Your task to perform on an android device: toggle translation in the chrome app Image 0: 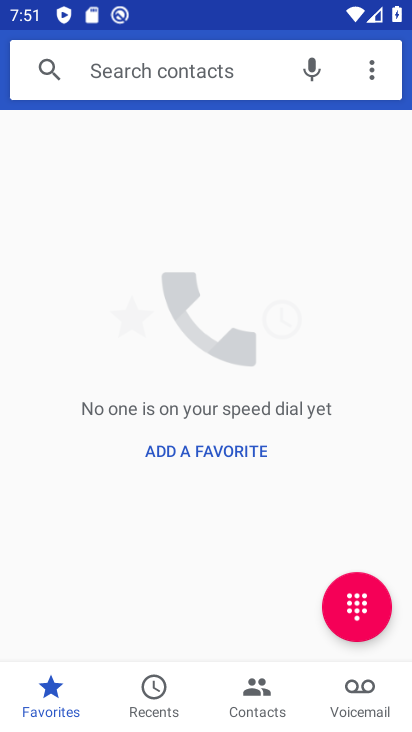
Step 0: press home button
Your task to perform on an android device: toggle translation in the chrome app Image 1: 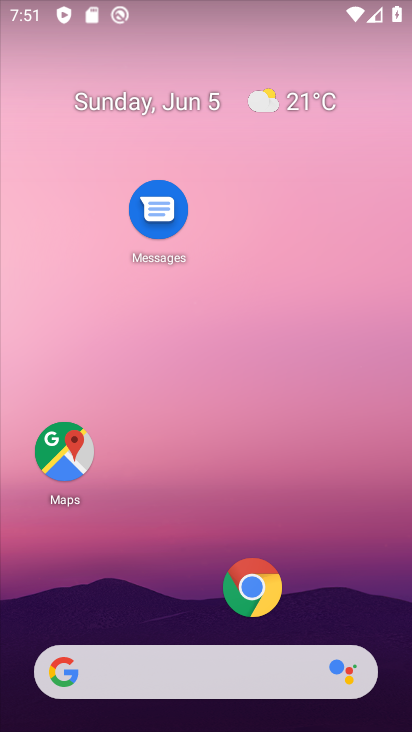
Step 1: click (249, 577)
Your task to perform on an android device: toggle translation in the chrome app Image 2: 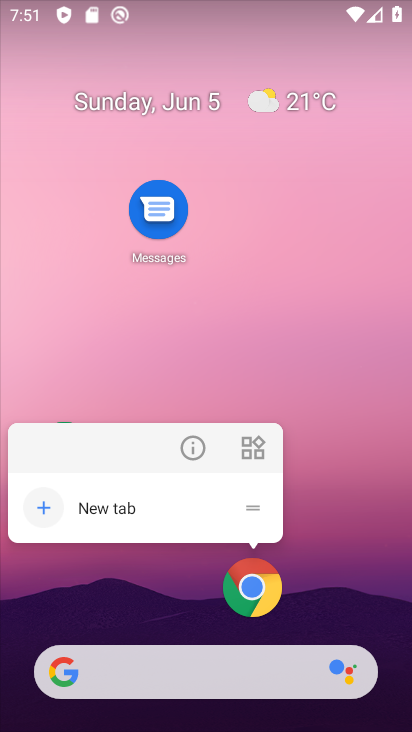
Step 2: click (250, 585)
Your task to perform on an android device: toggle translation in the chrome app Image 3: 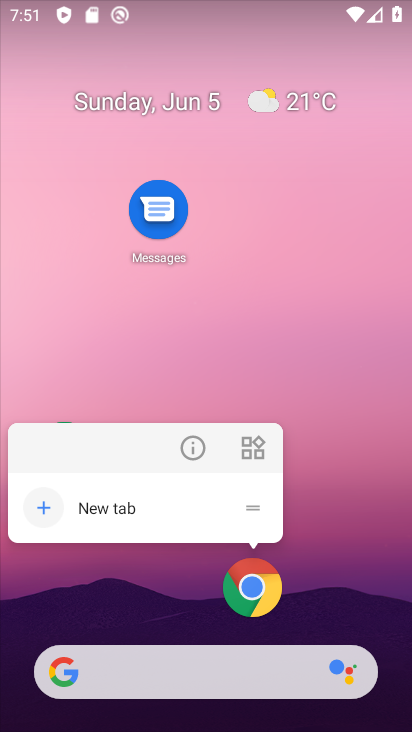
Step 3: click (250, 583)
Your task to perform on an android device: toggle translation in the chrome app Image 4: 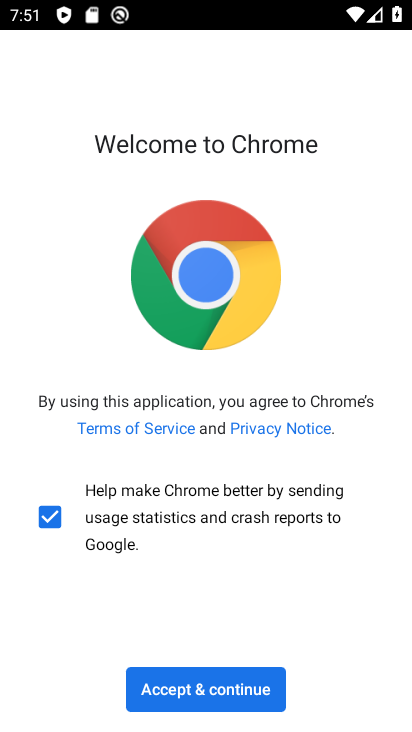
Step 4: click (203, 681)
Your task to perform on an android device: toggle translation in the chrome app Image 5: 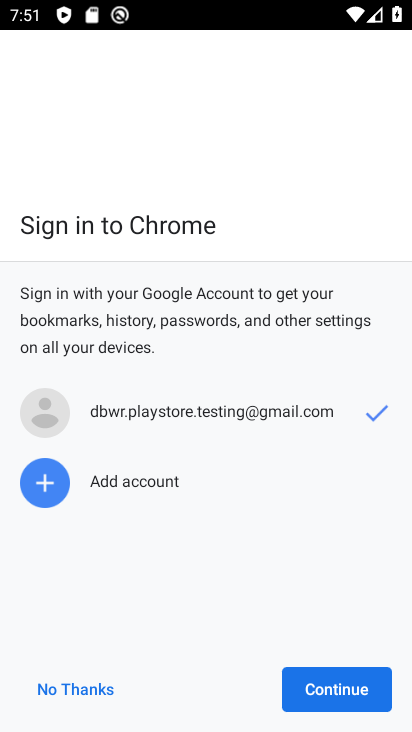
Step 5: click (339, 682)
Your task to perform on an android device: toggle translation in the chrome app Image 6: 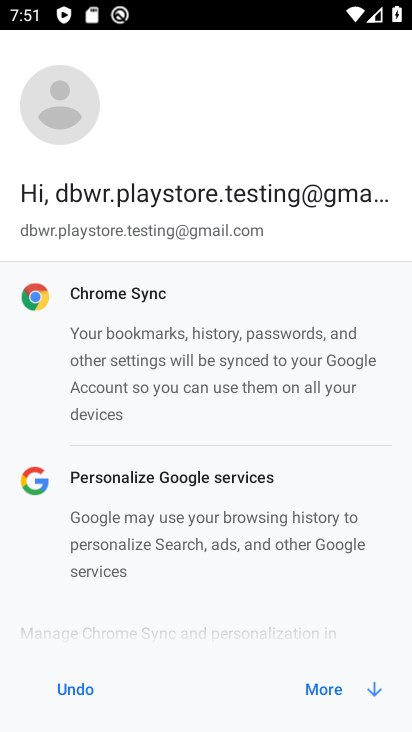
Step 6: click (335, 682)
Your task to perform on an android device: toggle translation in the chrome app Image 7: 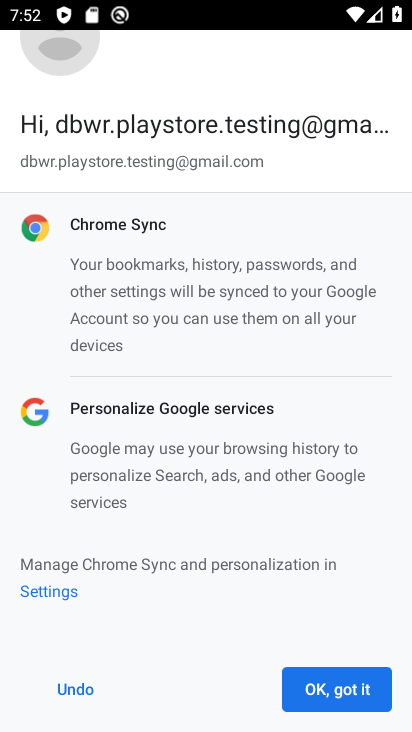
Step 7: click (336, 686)
Your task to perform on an android device: toggle translation in the chrome app Image 8: 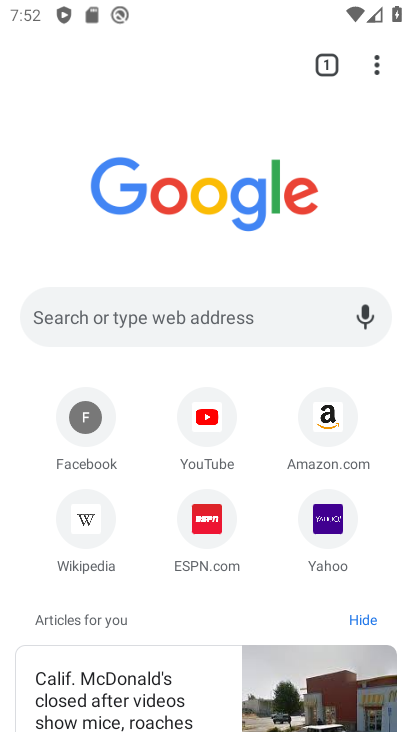
Step 8: click (373, 64)
Your task to perform on an android device: toggle translation in the chrome app Image 9: 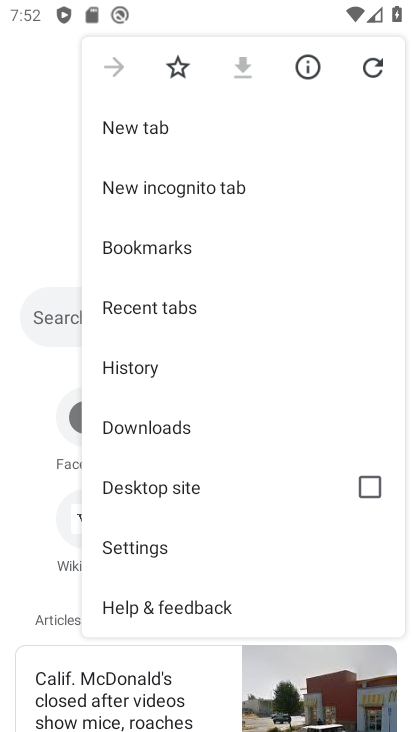
Step 9: click (190, 547)
Your task to perform on an android device: toggle translation in the chrome app Image 10: 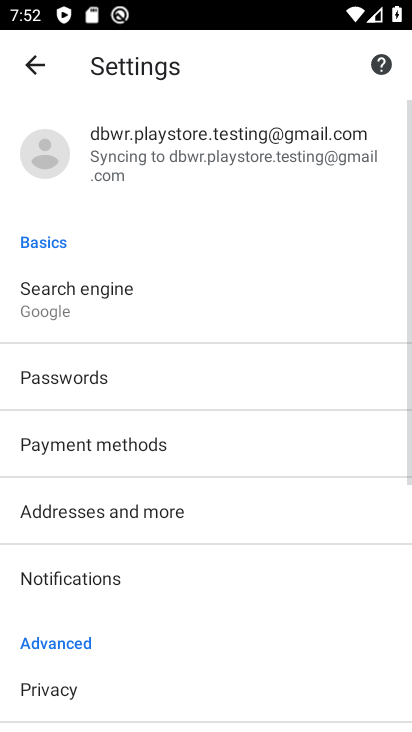
Step 10: drag from (198, 702) to (215, 83)
Your task to perform on an android device: toggle translation in the chrome app Image 11: 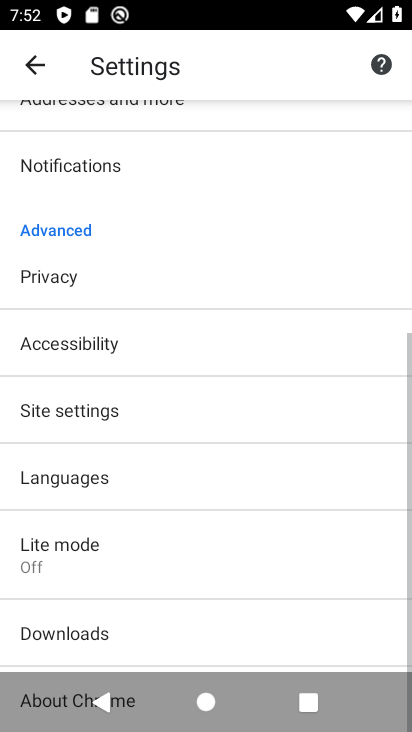
Step 11: click (158, 470)
Your task to perform on an android device: toggle translation in the chrome app Image 12: 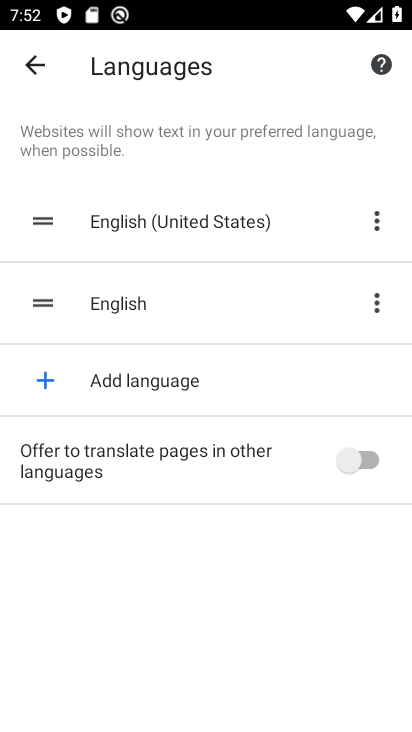
Step 12: click (359, 456)
Your task to perform on an android device: toggle translation in the chrome app Image 13: 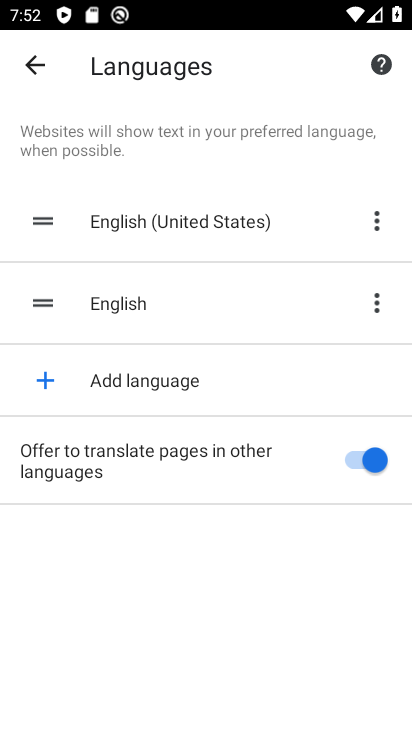
Step 13: task complete